Your task to perform on an android device: Open Android settings Image 0: 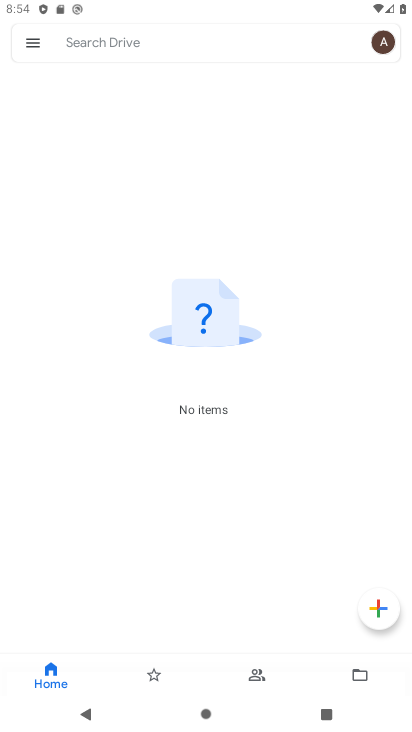
Step 0: press home button
Your task to perform on an android device: Open Android settings Image 1: 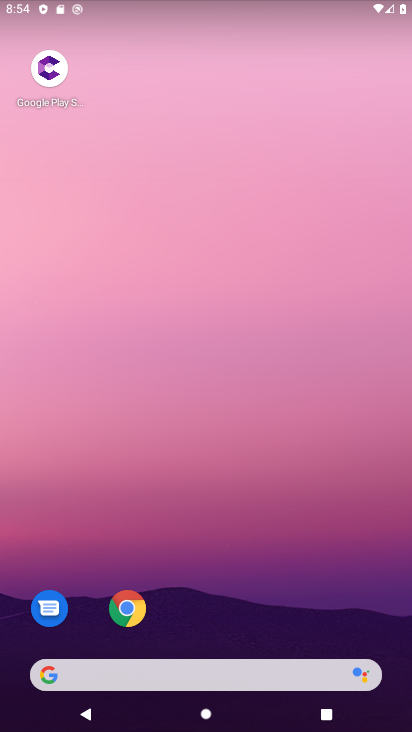
Step 1: drag from (216, 668) to (209, 21)
Your task to perform on an android device: Open Android settings Image 2: 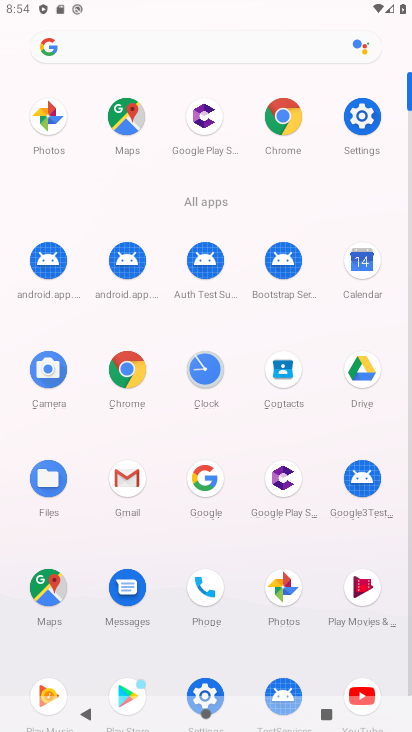
Step 2: click (351, 110)
Your task to perform on an android device: Open Android settings Image 3: 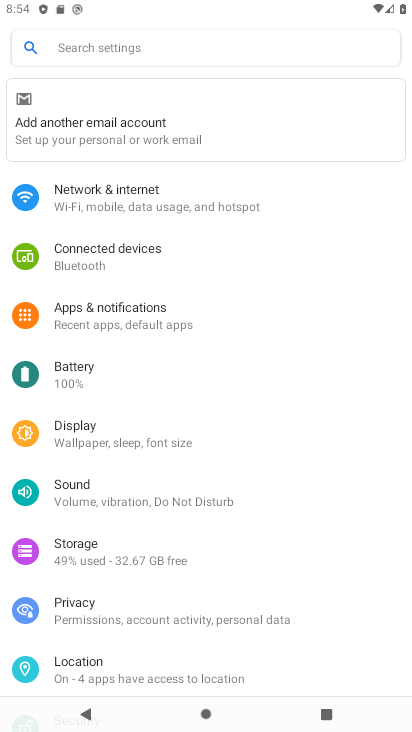
Step 3: task complete